Your task to perform on an android device: refresh tabs in the chrome app Image 0: 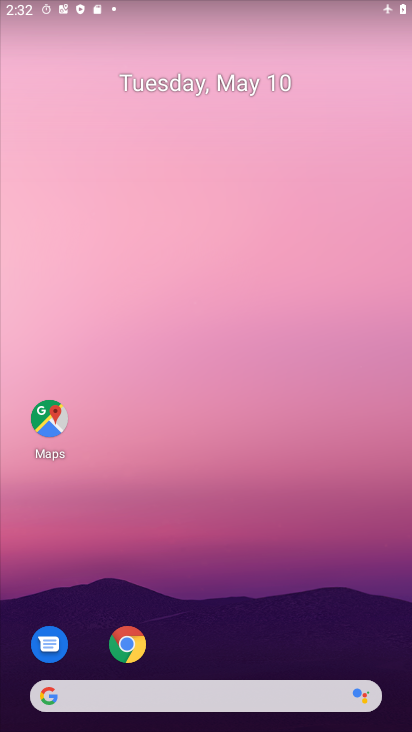
Step 0: drag from (220, 615) to (218, 340)
Your task to perform on an android device: refresh tabs in the chrome app Image 1: 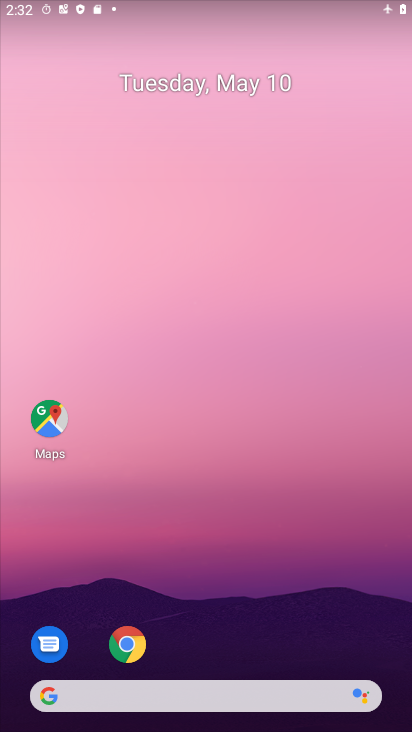
Step 1: drag from (223, 668) to (225, 266)
Your task to perform on an android device: refresh tabs in the chrome app Image 2: 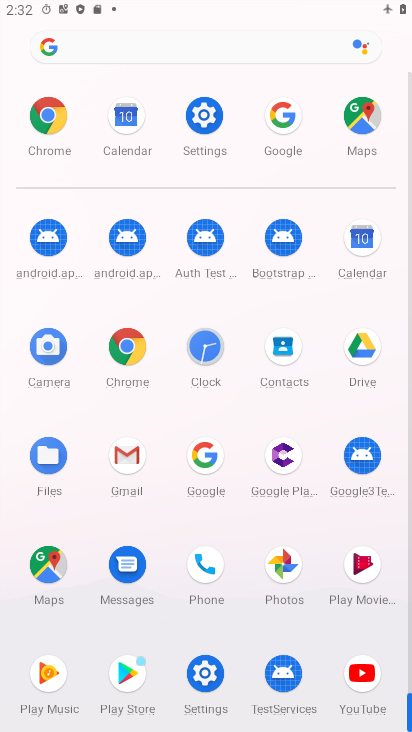
Step 2: click (128, 355)
Your task to perform on an android device: refresh tabs in the chrome app Image 3: 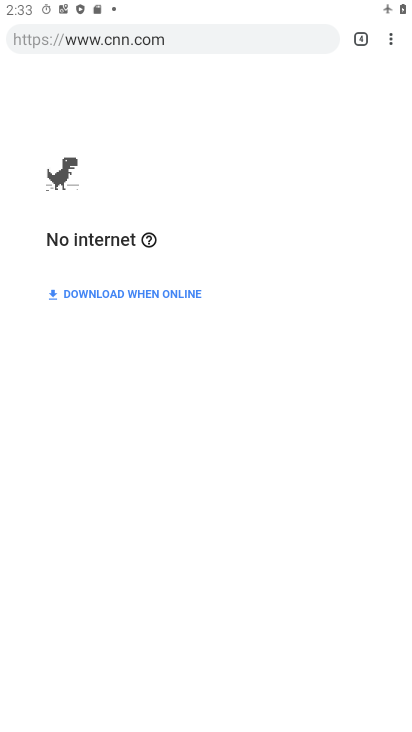
Step 3: click (386, 41)
Your task to perform on an android device: refresh tabs in the chrome app Image 4: 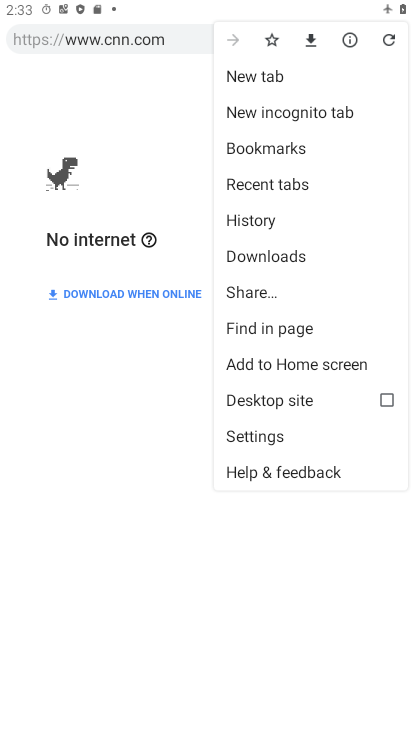
Step 4: click (391, 40)
Your task to perform on an android device: refresh tabs in the chrome app Image 5: 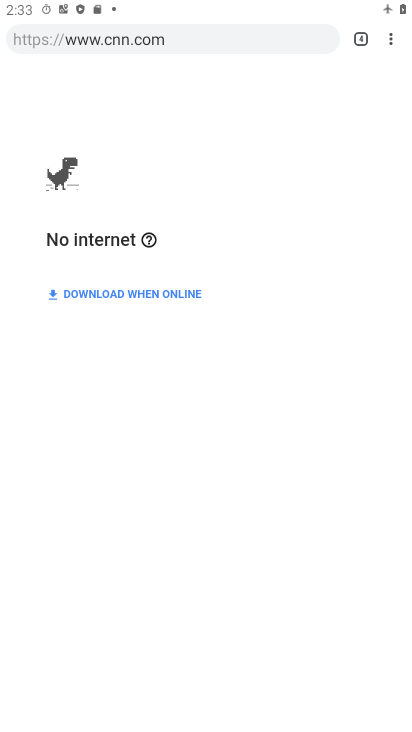
Step 5: task complete